Your task to perform on an android device: Add razer deathadder to the cart on amazon.com Image 0: 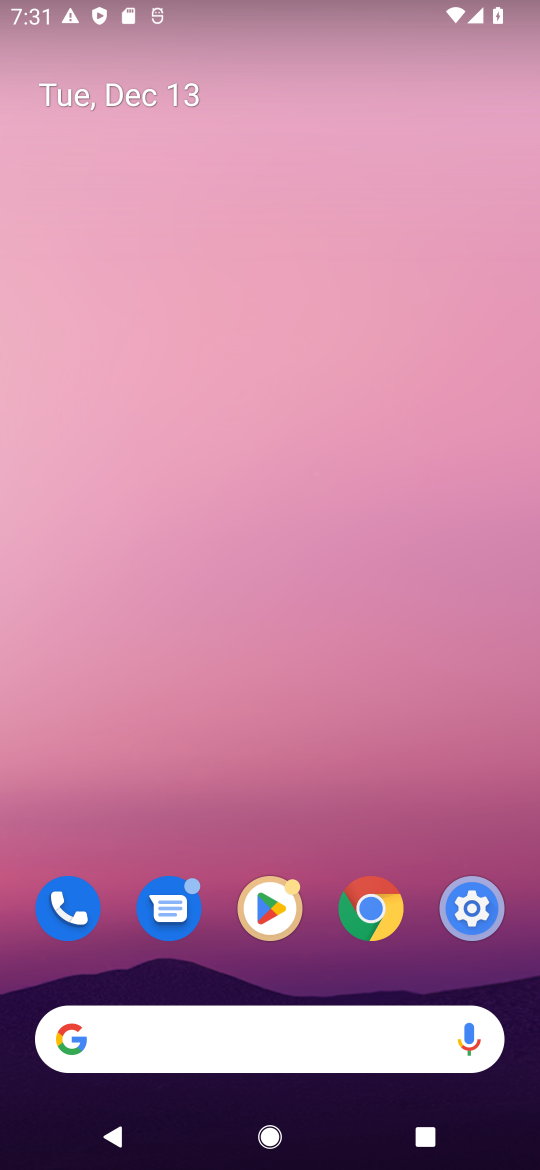
Step 0: click (106, 1028)
Your task to perform on an android device: Add razer deathadder to the cart on amazon.com Image 1: 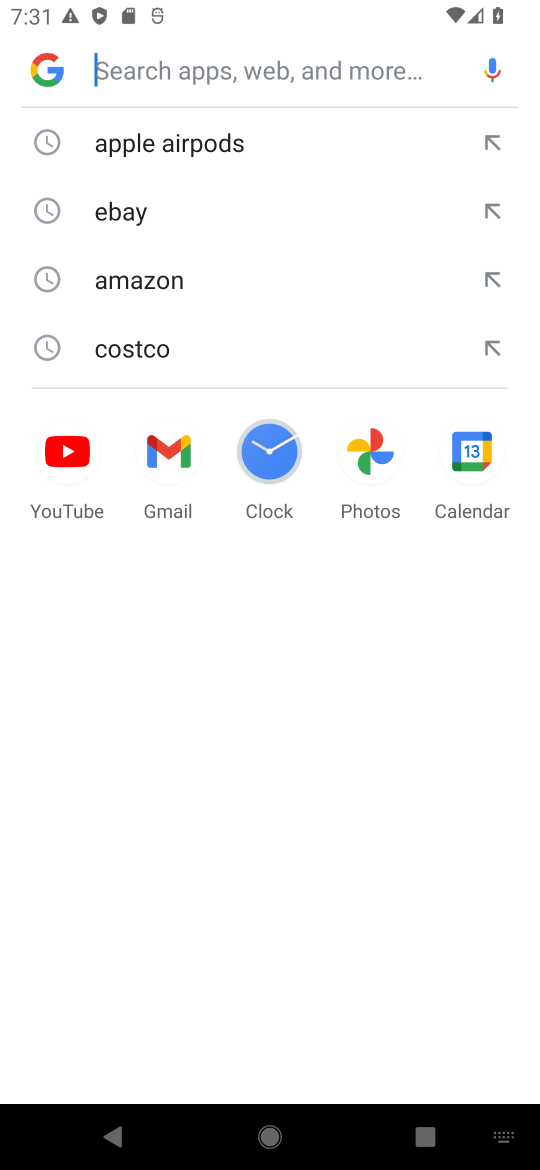
Step 1: type "amazon.com"
Your task to perform on an android device: Add razer deathadder to the cart on amazon.com Image 2: 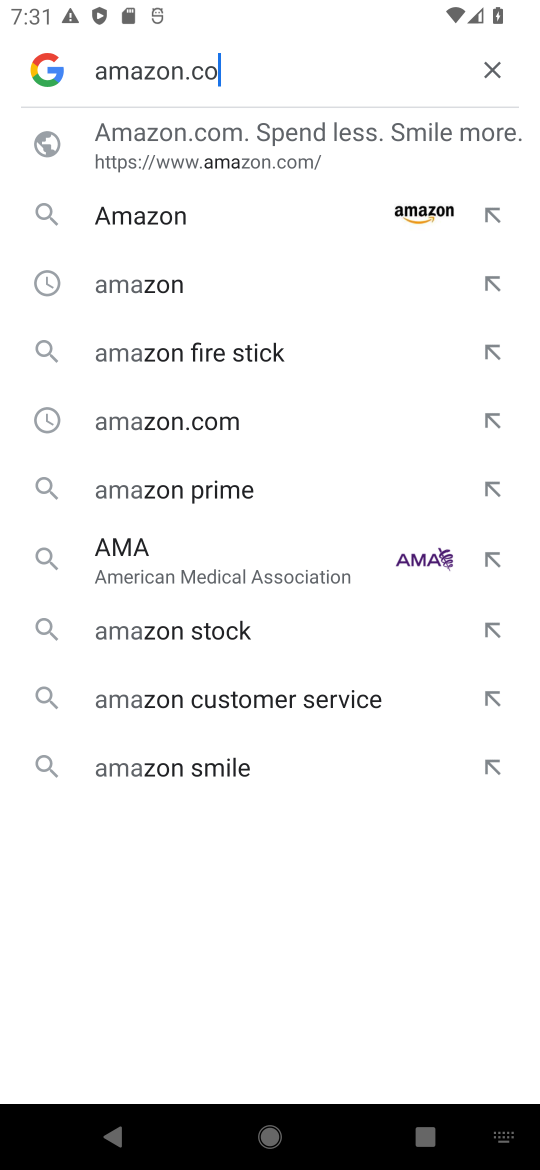
Step 2: press enter
Your task to perform on an android device: Add razer deathadder to the cart on amazon.com Image 3: 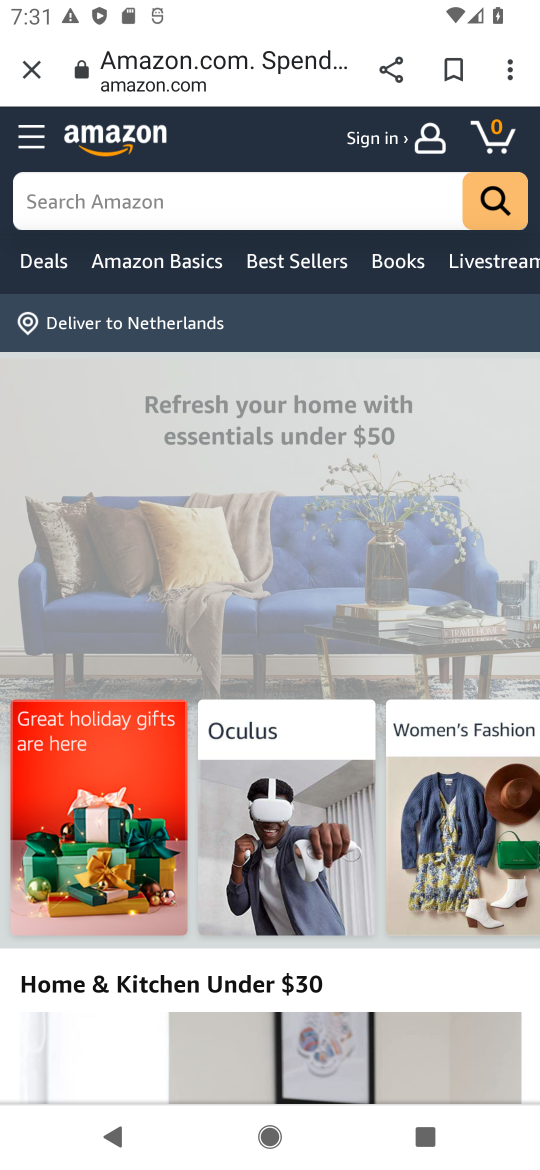
Step 3: click (91, 190)
Your task to perform on an android device: Add razer deathadder to the cart on amazon.com Image 4: 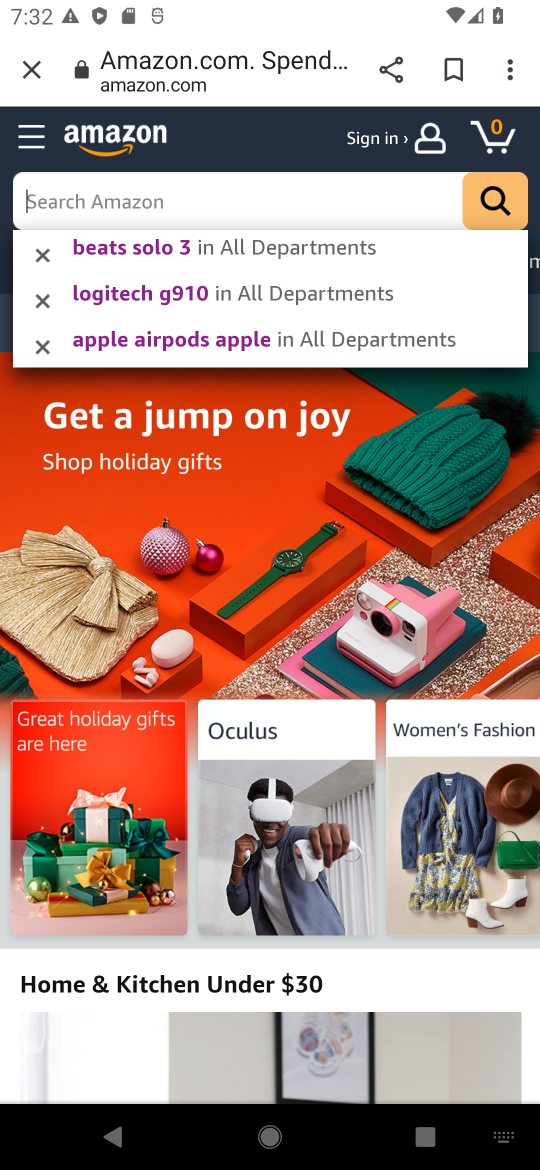
Step 4: press enter
Your task to perform on an android device: Add razer deathadder to the cart on amazon.com Image 5: 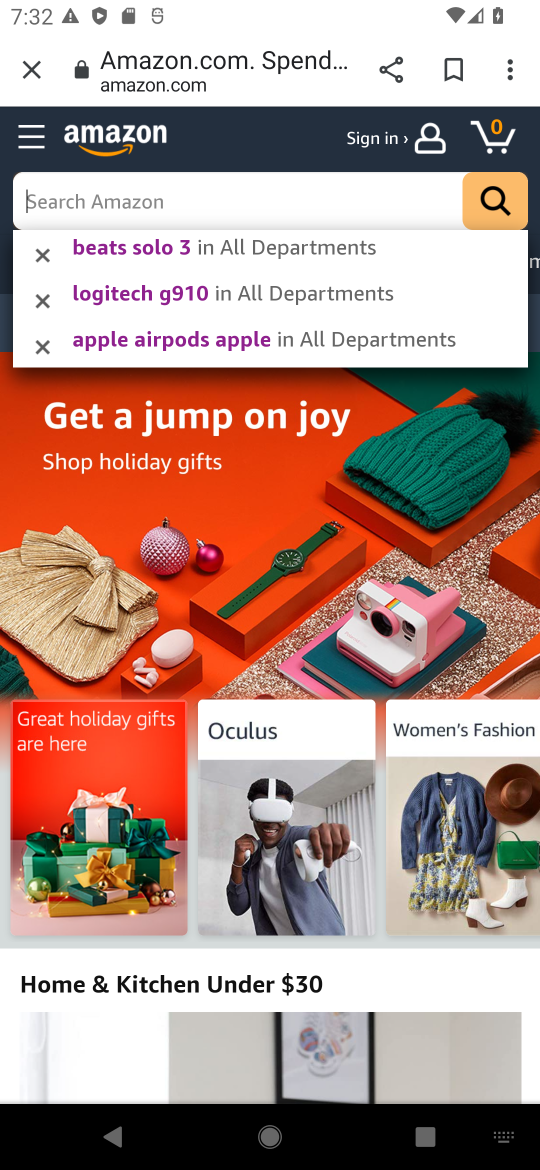
Step 5: type "razer deathadder"
Your task to perform on an android device: Add razer deathadder to the cart on amazon.com Image 6: 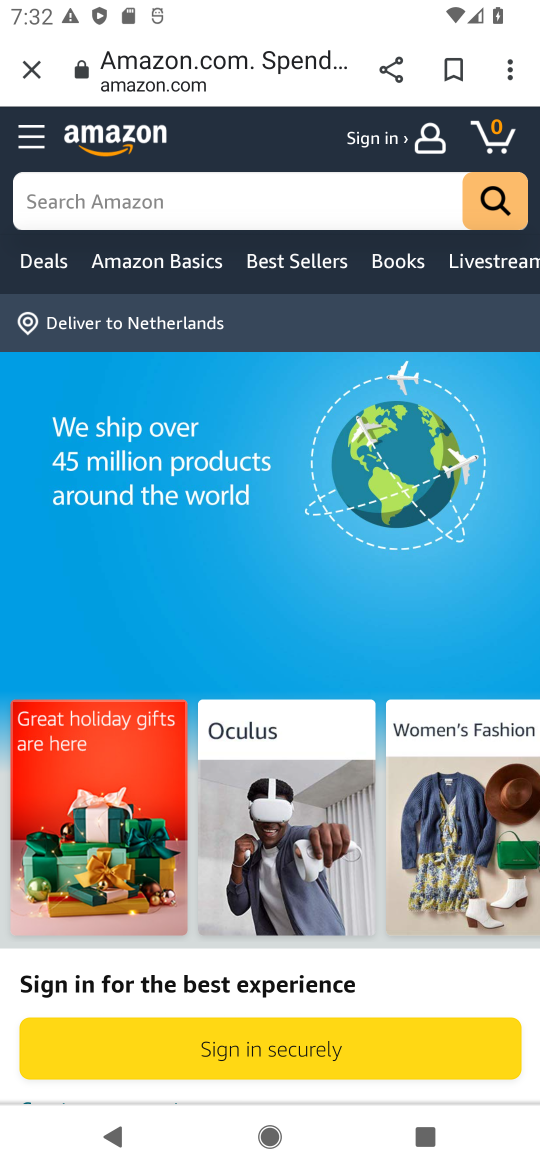
Step 6: click (192, 199)
Your task to perform on an android device: Add razer deathadder to the cart on amazon.com Image 7: 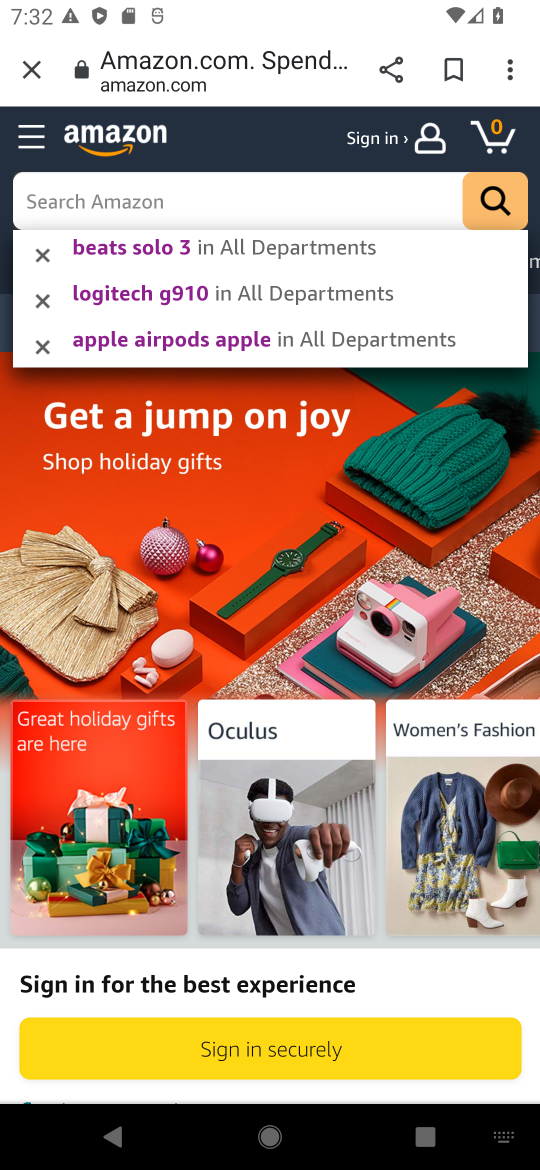
Step 7: type "razer deathadder"
Your task to perform on an android device: Add razer deathadder to the cart on amazon.com Image 8: 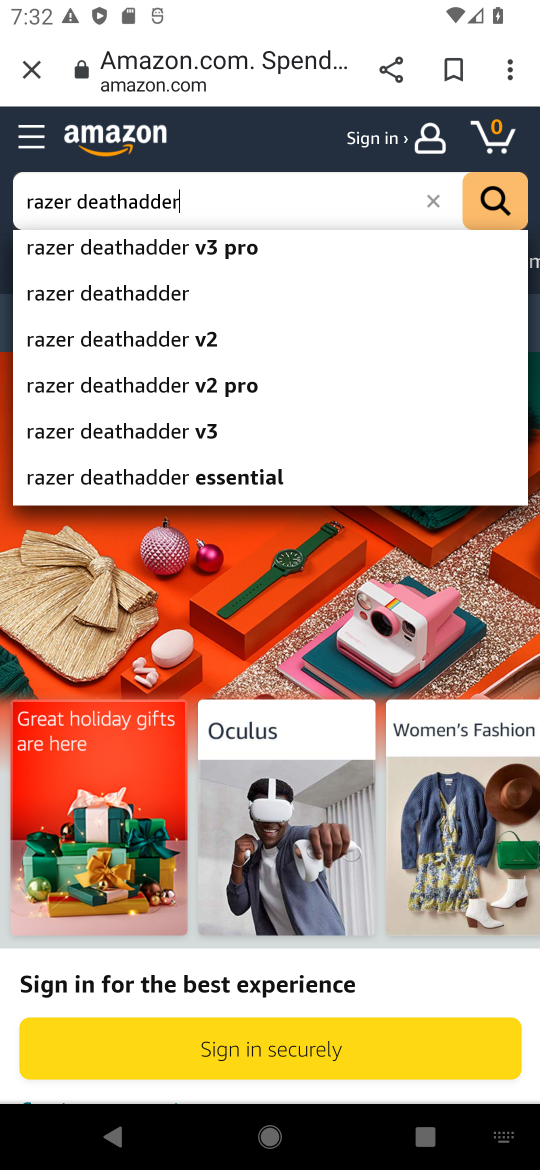
Step 8: click (490, 190)
Your task to perform on an android device: Add razer deathadder to the cart on amazon.com Image 9: 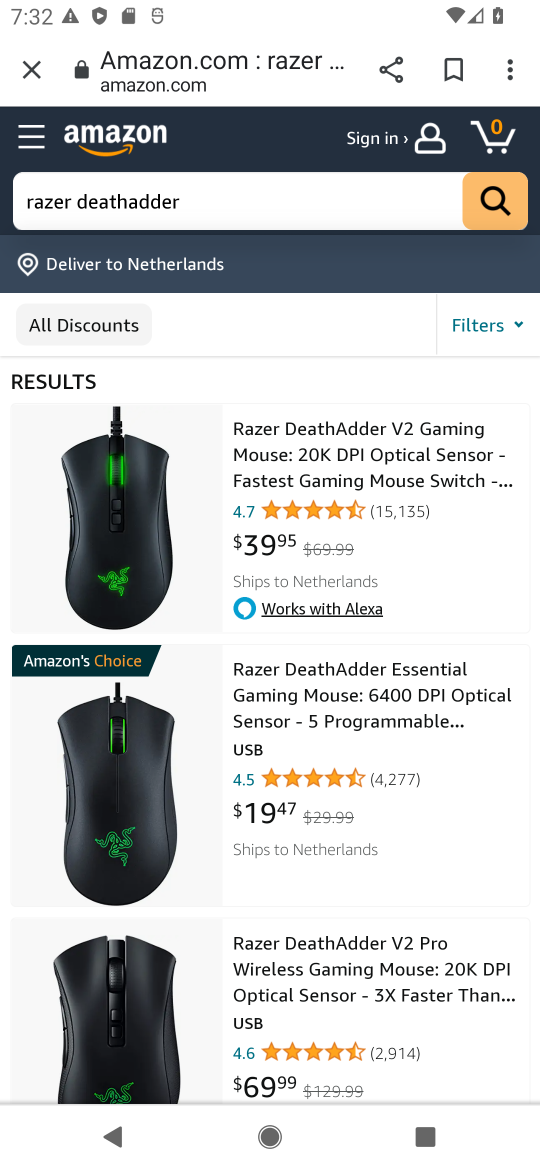
Step 9: click (321, 469)
Your task to perform on an android device: Add razer deathadder to the cart on amazon.com Image 10: 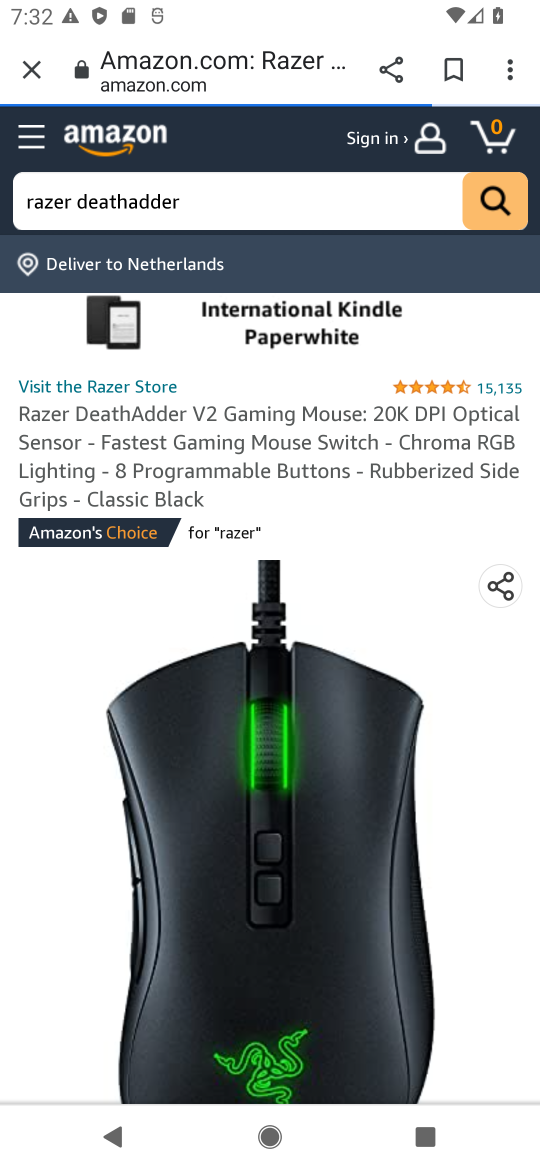
Step 10: drag from (303, 1009) to (316, 437)
Your task to perform on an android device: Add razer deathadder to the cart on amazon.com Image 11: 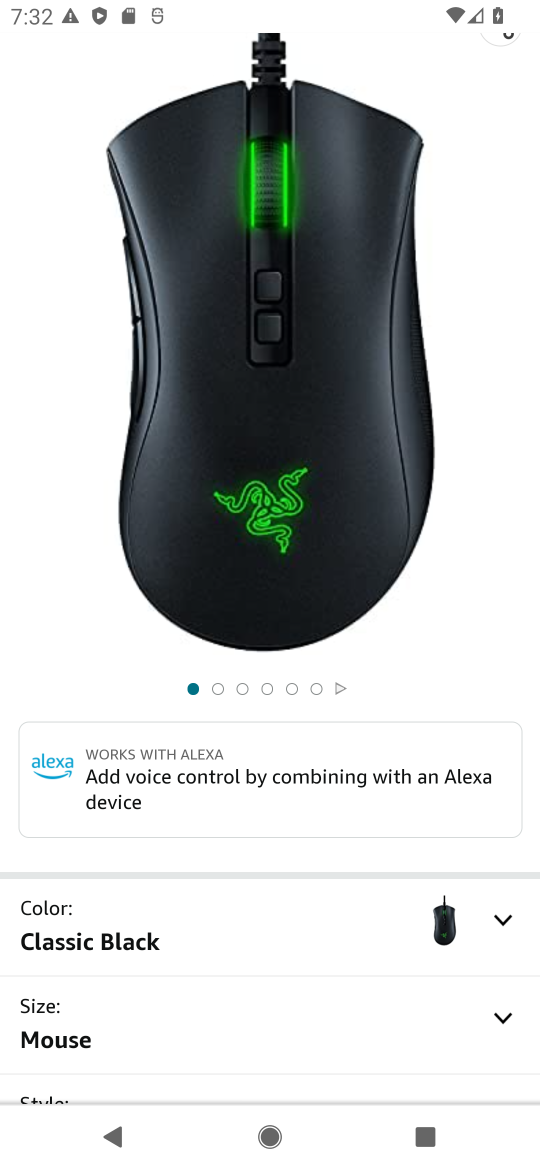
Step 11: drag from (317, 967) to (315, 359)
Your task to perform on an android device: Add razer deathadder to the cart on amazon.com Image 12: 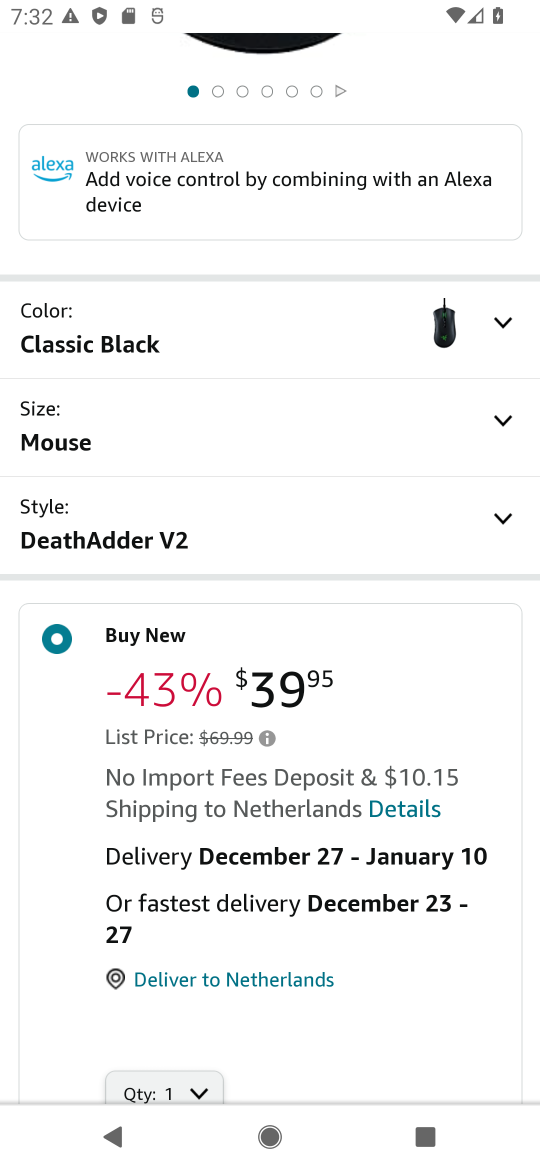
Step 12: drag from (279, 1030) to (330, 292)
Your task to perform on an android device: Add razer deathadder to the cart on amazon.com Image 13: 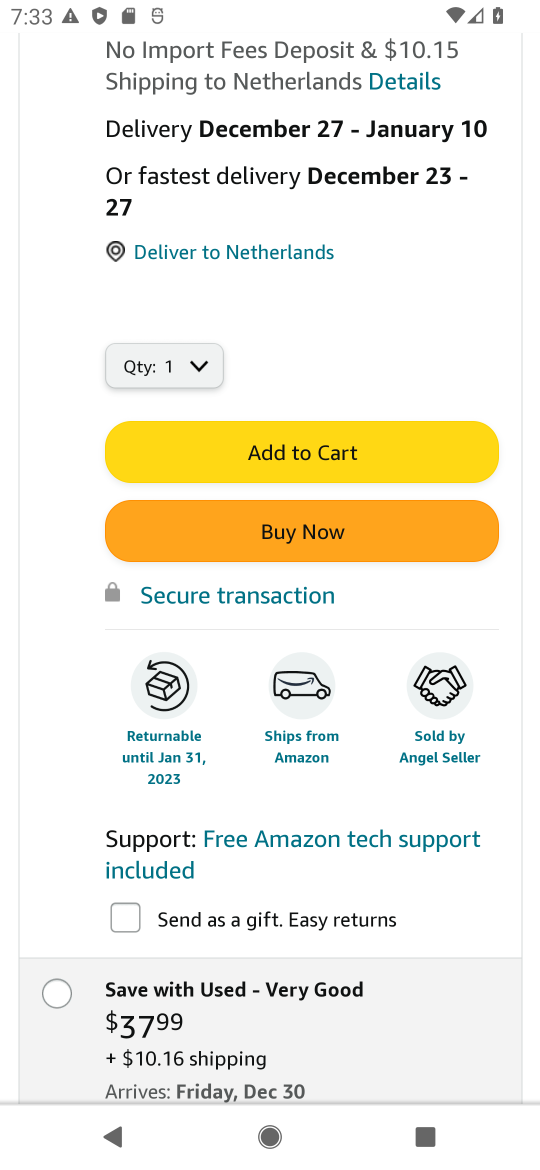
Step 13: click (243, 443)
Your task to perform on an android device: Add razer deathadder to the cart on amazon.com Image 14: 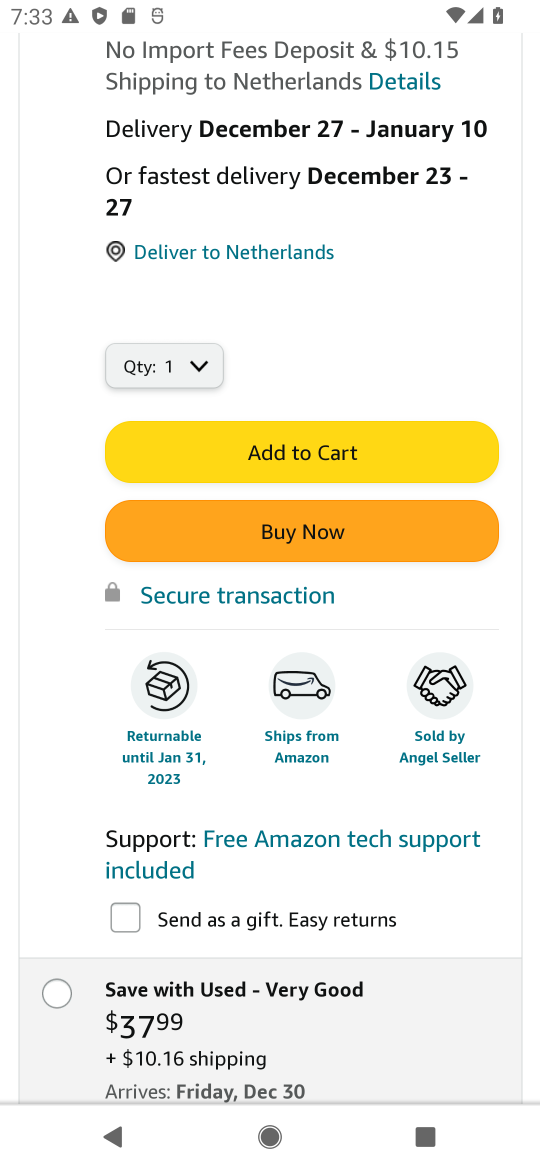
Step 14: click (301, 457)
Your task to perform on an android device: Add razer deathadder to the cart on amazon.com Image 15: 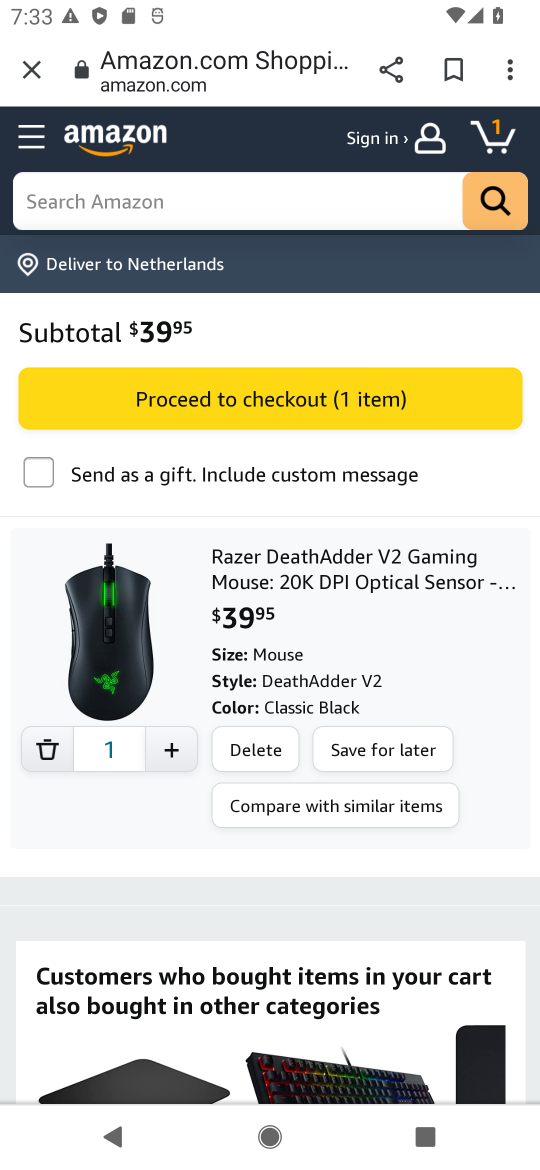
Step 15: task complete